Your task to perform on an android device: Go to display settings Image 0: 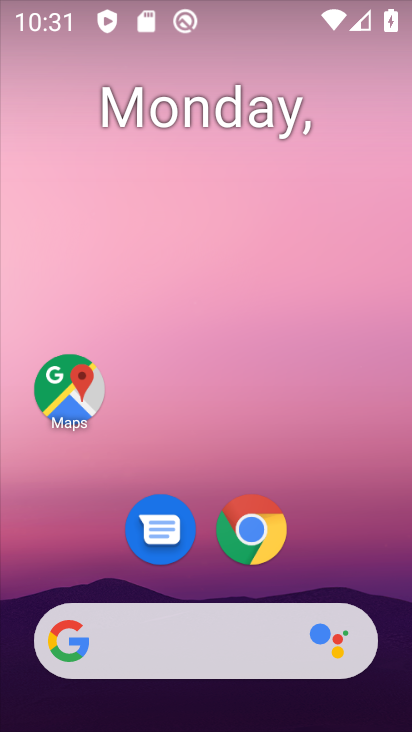
Step 0: drag from (217, 731) to (192, 172)
Your task to perform on an android device: Go to display settings Image 1: 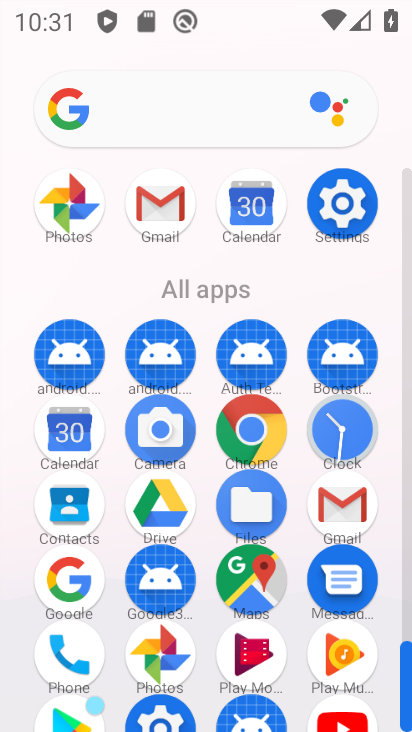
Step 1: click (350, 201)
Your task to perform on an android device: Go to display settings Image 2: 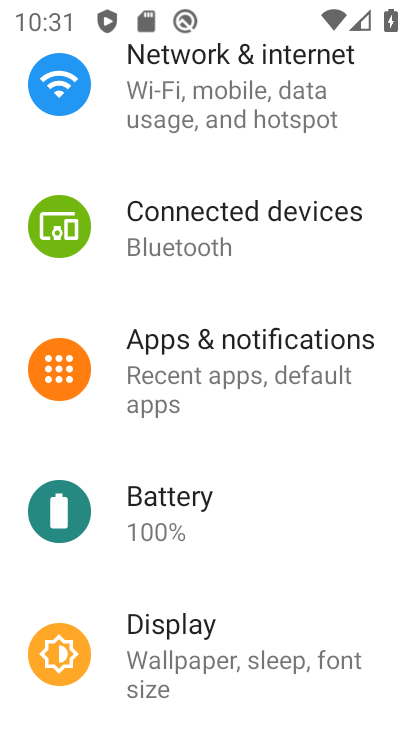
Step 2: click (165, 649)
Your task to perform on an android device: Go to display settings Image 3: 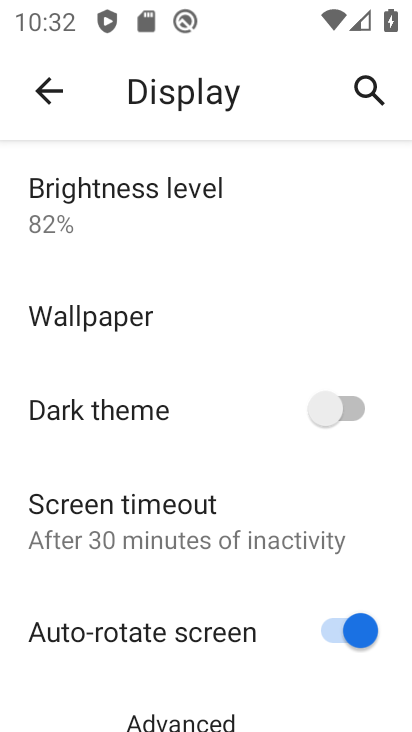
Step 3: task complete